Your task to perform on an android device: Do I have any events tomorrow? Image 0: 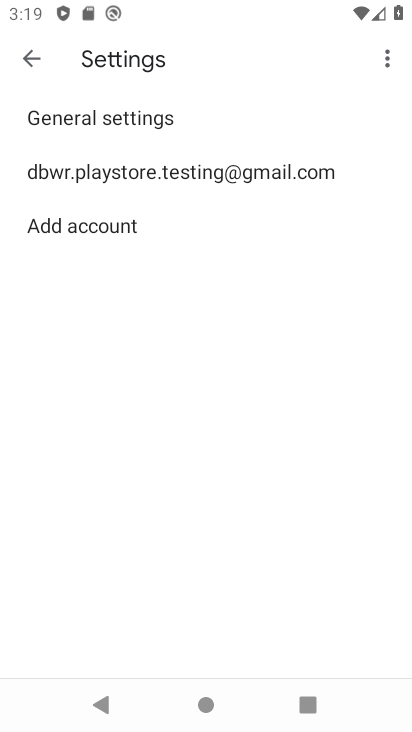
Step 0: press home button
Your task to perform on an android device: Do I have any events tomorrow? Image 1: 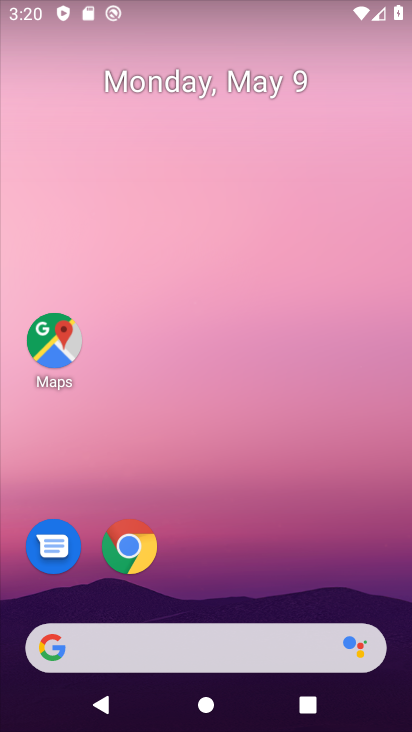
Step 1: drag from (224, 594) to (107, 114)
Your task to perform on an android device: Do I have any events tomorrow? Image 2: 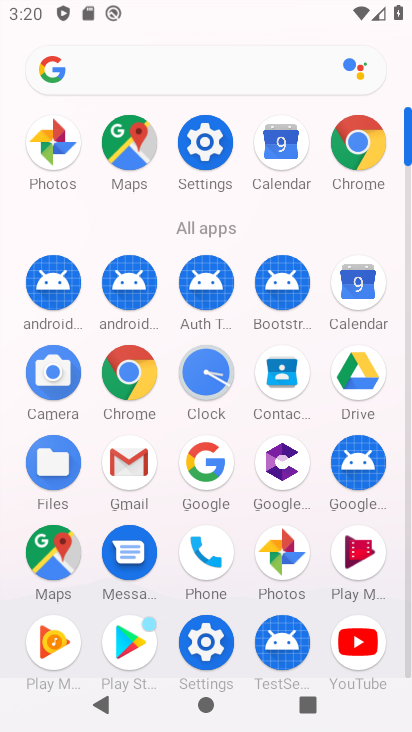
Step 2: click (356, 307)
Your task to perform on an android device: Do I have any events tomorrow? Image 3: 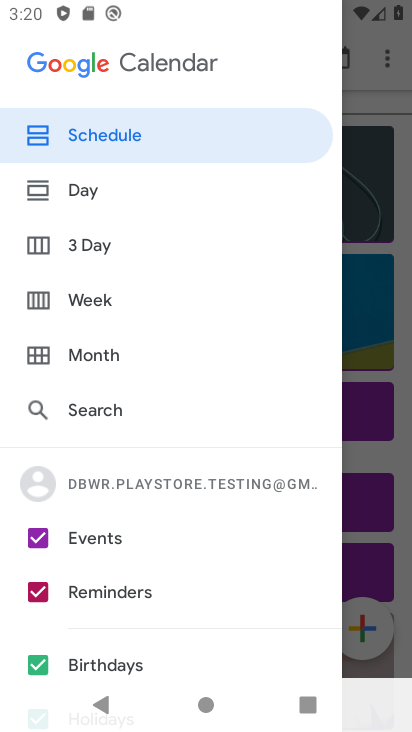
Step 3: press back button
Your task to perform on an android device: Do I have any events tomorrow? Image 4: 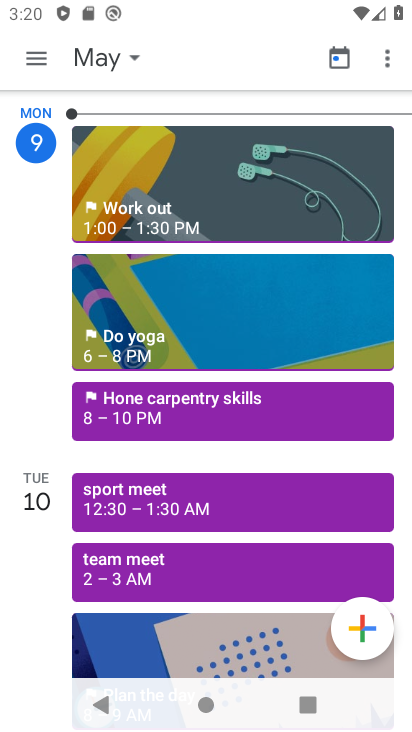
Step 4: click (110, 58)
Your task to perform on an android device: Do I have any events tomorrow? Image 5: 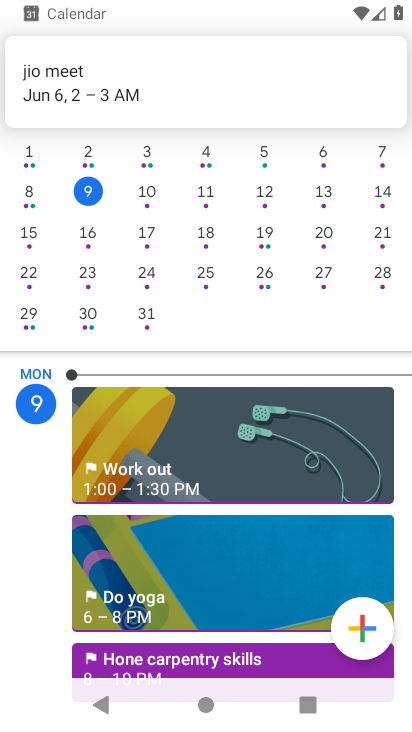
Step 5: click (140, 199)
Your task to perform on an android device: Do I have any events tomorrow? Image 6: 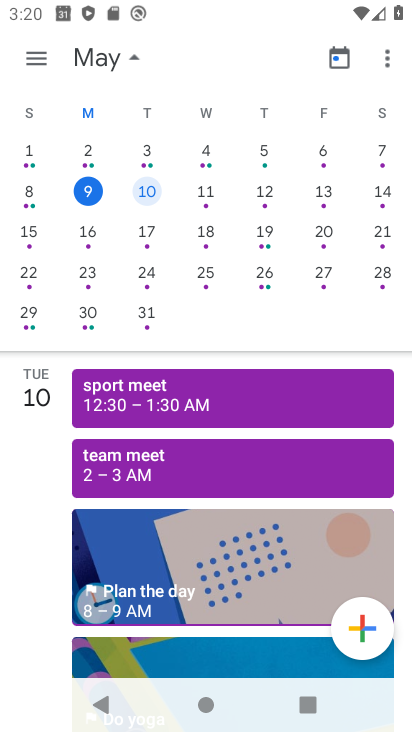
Step 6: task complete